Your task to perform on an android device: uninstall "Microsoft Excel" Image 0: 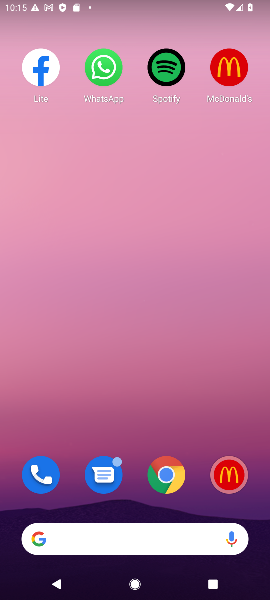
Step 0: drag from (118, 509) to (132, 534)
Your task to perform on an android device: uninstall "Microsoft Excel" Image 1: 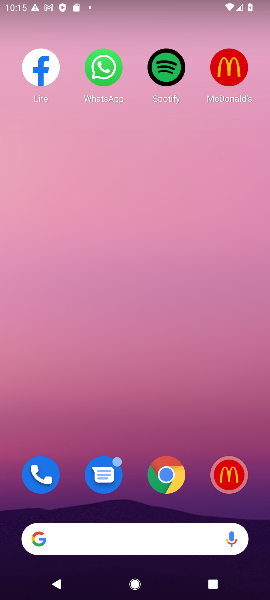
Step 1: click (220, 465)
Your task to perform on an android device: uninstall "Microsoft Excel" Image 2: 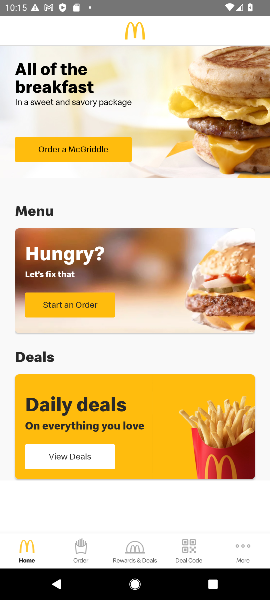
Step 2: press home button
Your task to perform on an android device: uninstall "Microsoft Excel" Image 3: 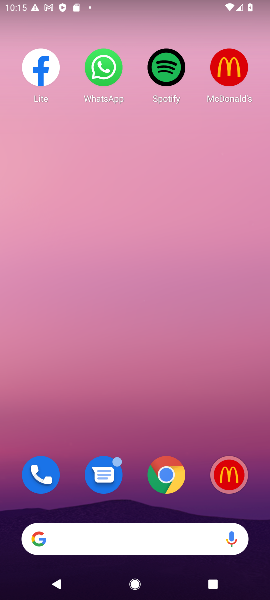
Step 3: drag from (127, 504) to (119, 8)
Your task to perform on an android device: uninstall "Microsoft Excel" Image 4: 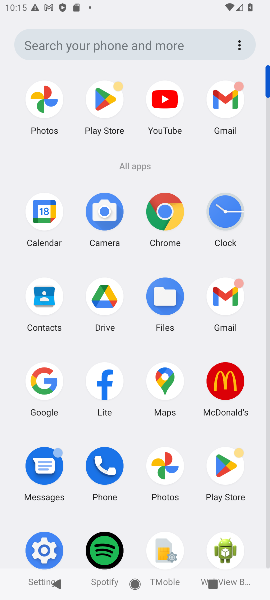
Step 4: click (221, 469)
Your task to perform on an android device: uninstall "Microsoft Excel" Image 5: 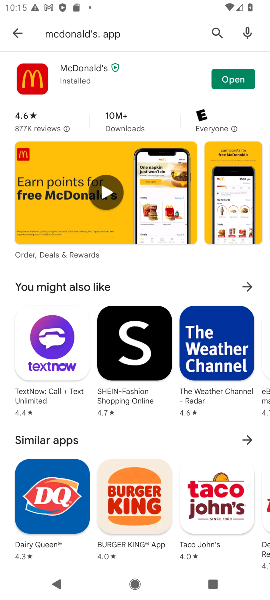
Step 5: click (14, 32)
Your task to perform on an android device: uninstall "Microsoft Excel" Image 6: 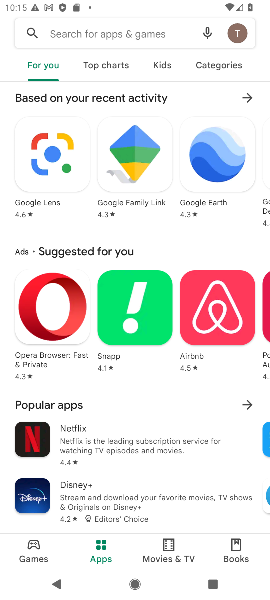
Step 6: click (88, 34)
Your task to perform on an android device: uninstall "Microsoft Excel" Image 7: 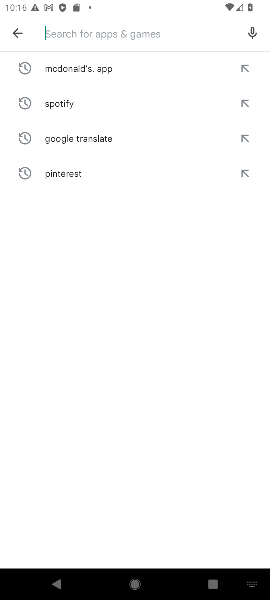
Step 7: type "Microsoft Excel"
Your task to perform on an android device: uninstall "Microsoft Excel" Image 8: 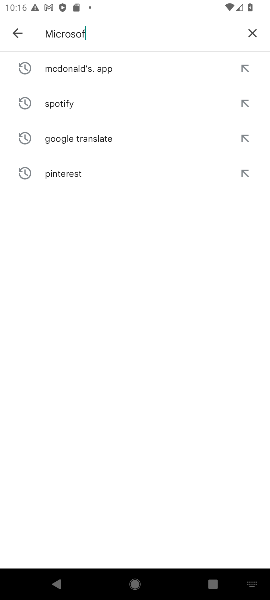
Step 8: type ""
Your task to perform on an android device: uninstall "Microsoft Excel" Image 9: 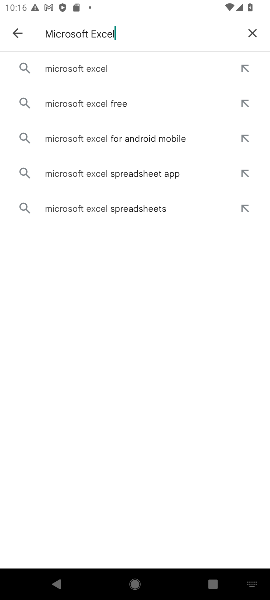
Step 9: click (90, 64)
Your task to perform on an android device: uninstall "Microsoft Excel" Image 10: 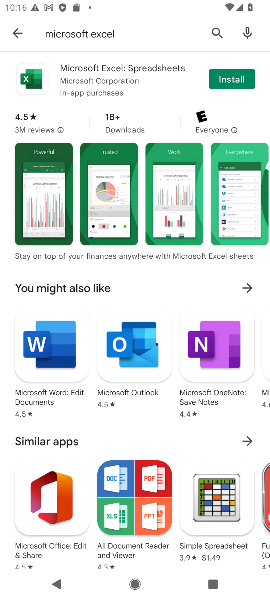
Step 10: task complete